Your task to perform on an android device: turn off wifi Image 0: 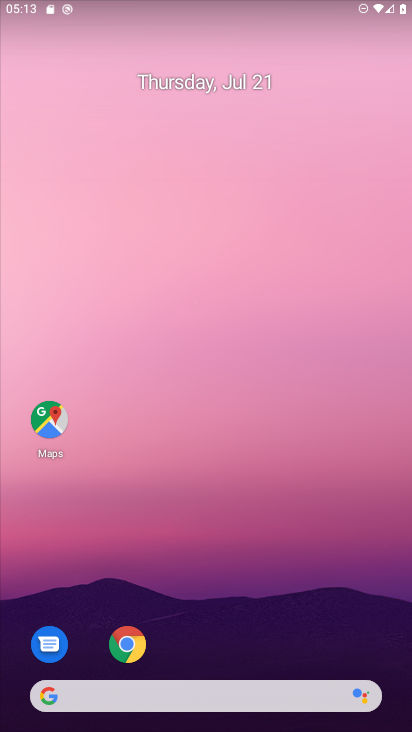
Step 0: drag from (193, 388) to (230, 130)
Your task to perform on an android device: turn off wifi Image 1: 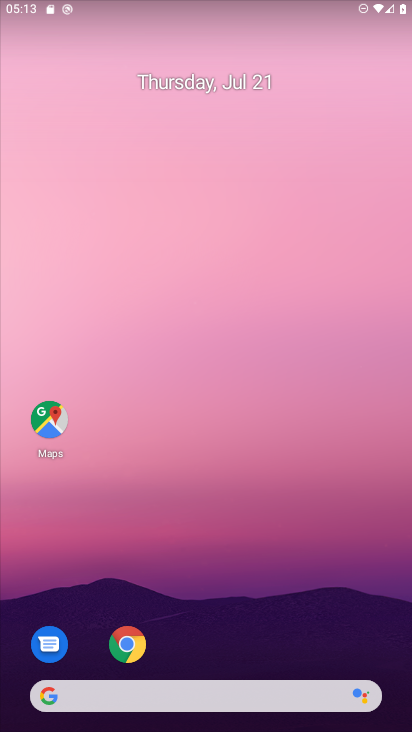
Step 1: drag from (186, 590) to (238, 64)
Your task to perform on an android device: turn off wifi Image 2: 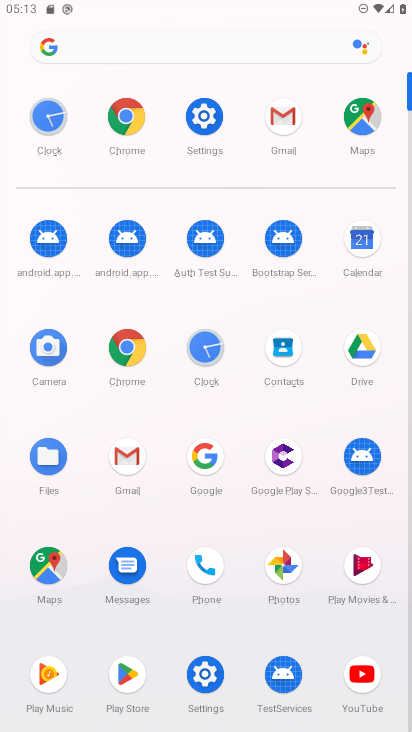
Step 2: click (199, 116)
Your task to perform on an android device: turn off wifi Image 3: 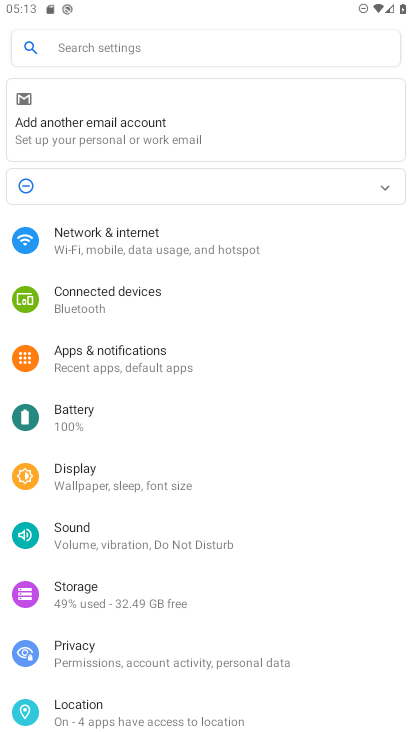
Step 3: click (103, 237)
Your task to perform on an android device: turn off wifi Image 4: 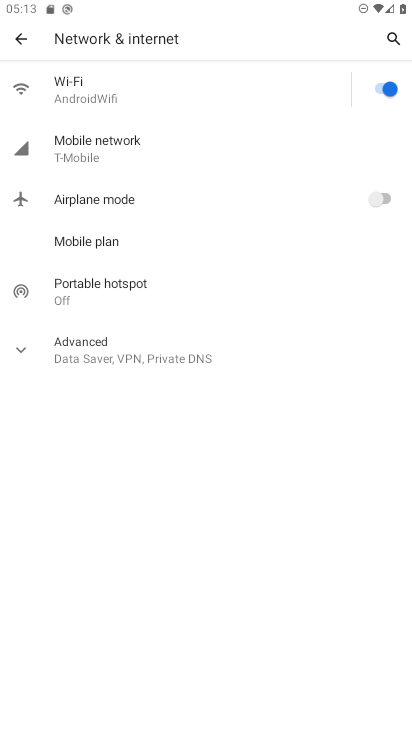
Step 4: task complete